Your task to perform on an android device: Search for acer predator on ebay, select the first entry, add it to the cart, then select checkout. Image 0: 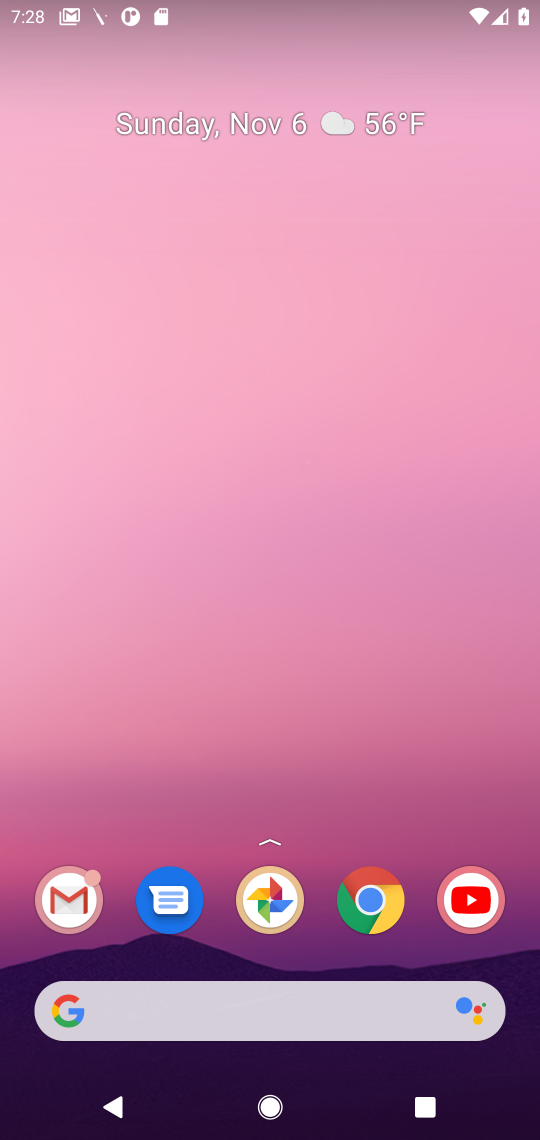
Step 0: drag from (319, 662) to (427, 33)
Your task to perform on an android device: Search for acer predator on ebay, select the first entry, add it to the cart, then select checkout. Image 1: 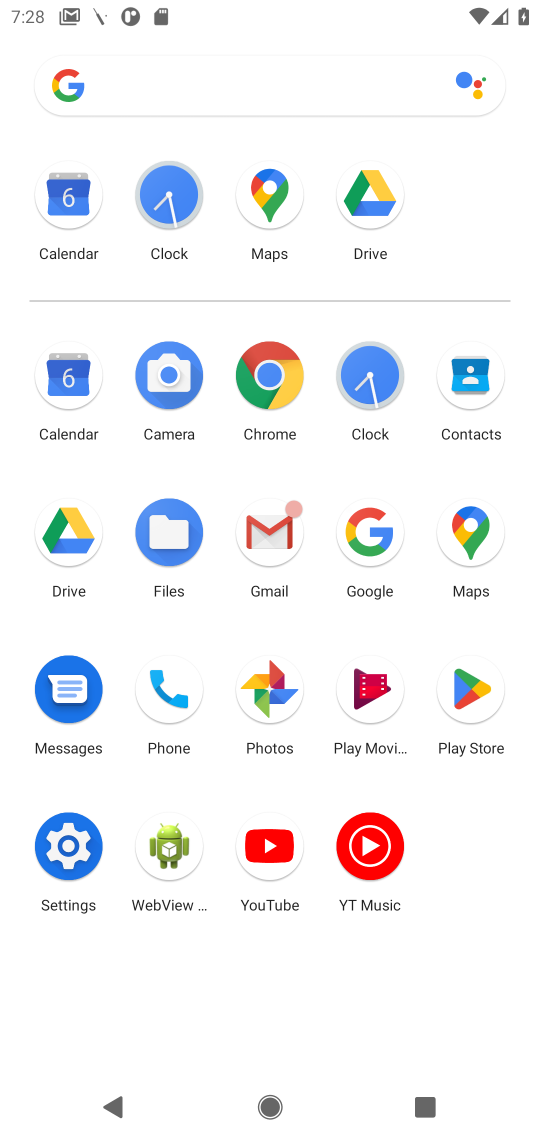
Step 1: click (265, 372)
Your task to perform on an android device: Search for acer predator on ebay, select the first entry, add it to the cart, then select checkout. Image 2: 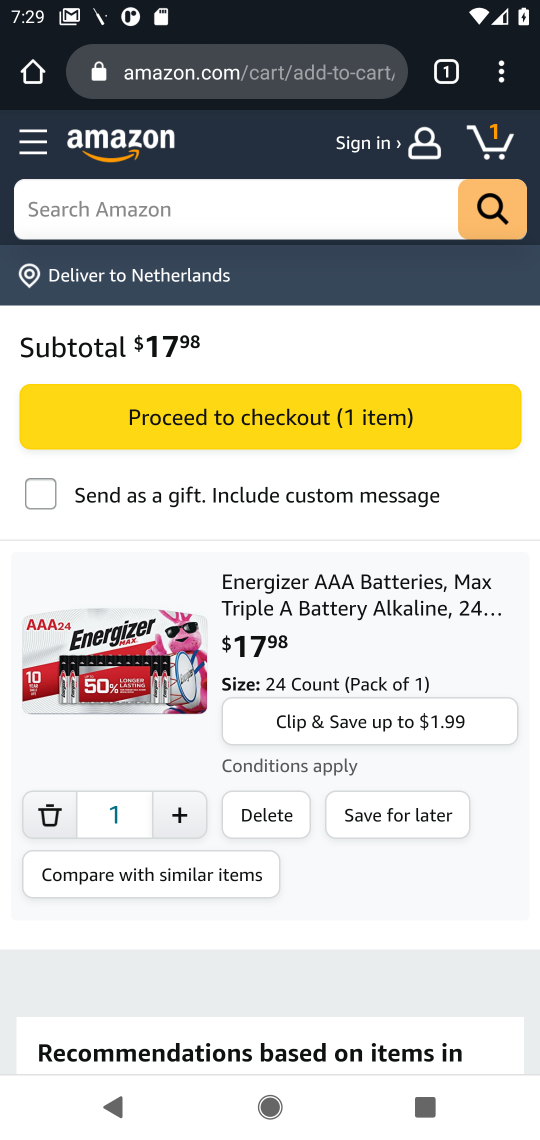
Step 2: click (246, 66)
Your task to perform on an android device: Search for acer predator on ebay, select the first entry, add it to the cart, then select checkout. Image 3: 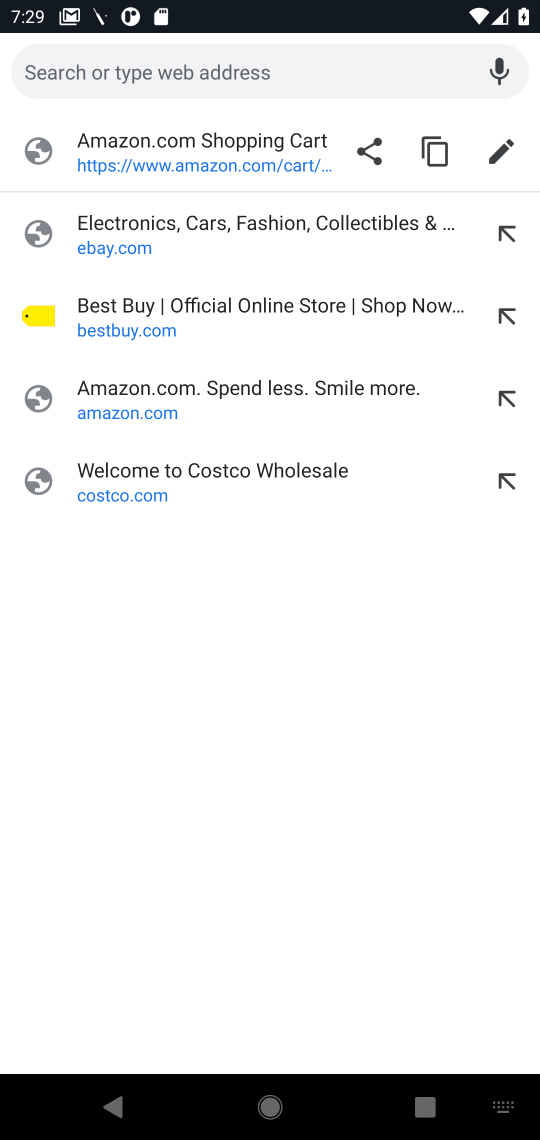
Step 3: type "ebay.com"
Your task to perform on an android device: Search for acer predator on ebay, select the first entry, add it to the cart, then select checkout. Image 4: 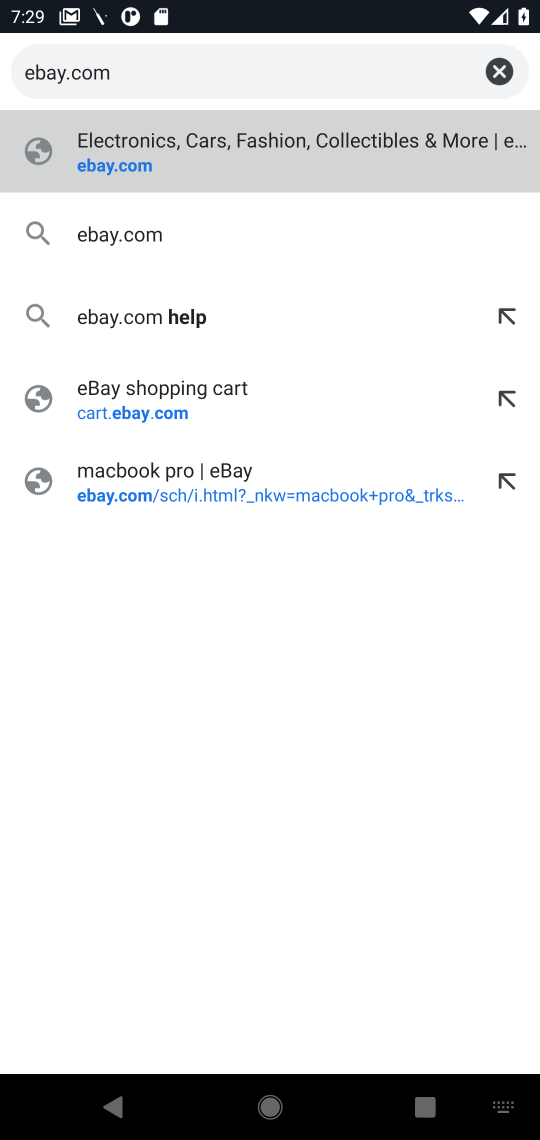
Step 4: press enter
Your task to perform on an android device: Search for acer predator on ebay, select the first entry, add it to the cart, then select checkout. Image 5: 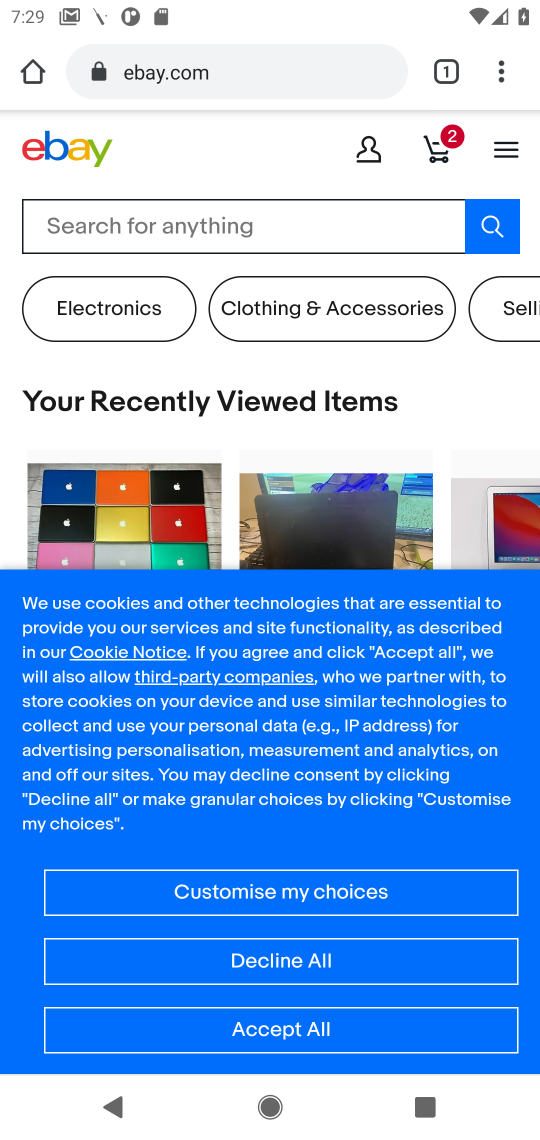
Step 5: click (260, 235)
Your task to perform on an android device: Search for acer predator on ebay, select the first entry, add it to the cart, then select checkout. Image 6: 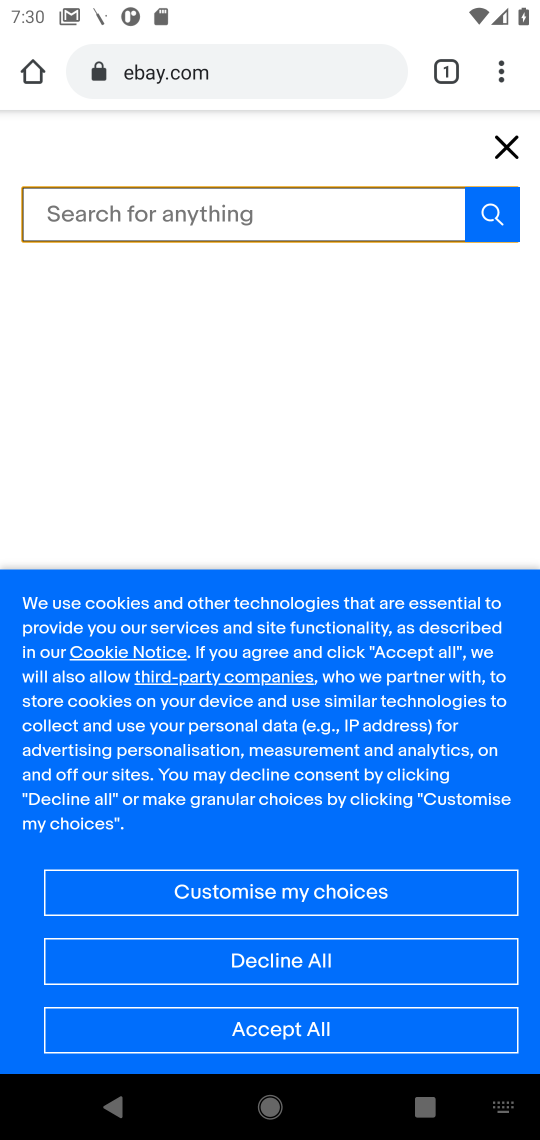
Step 6: type "acer predator"
Your task to perform on an android device: Search for acer predator on ebay, select the first entry, add it to the cart, then select checkout. Image 7: 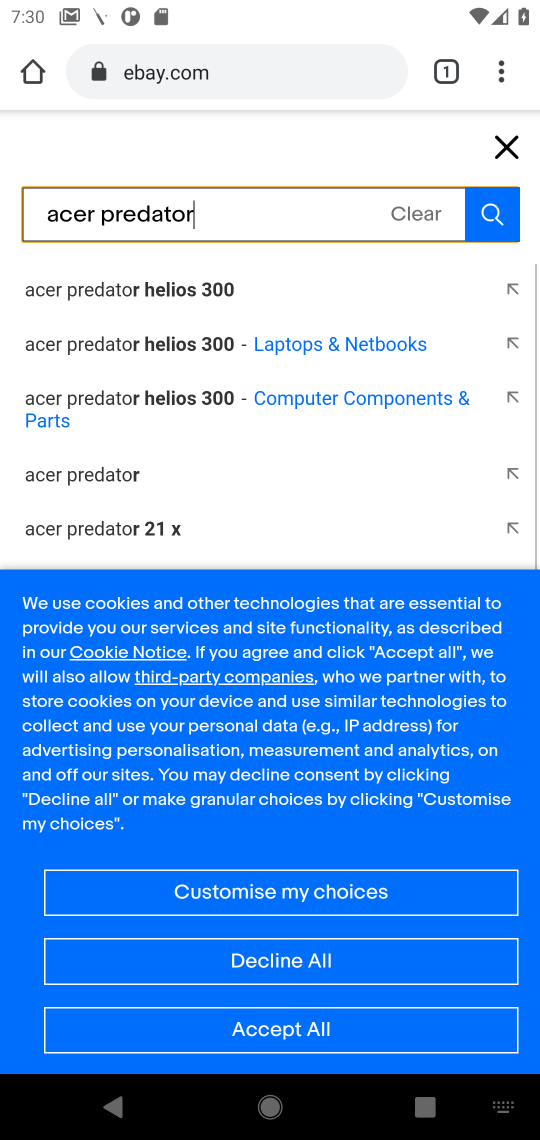
Step 7: press enter
Your task to perform on an android device: Search for acer predator on ebay, select the first entry, add it to the cart, then select checkout. Image 8: 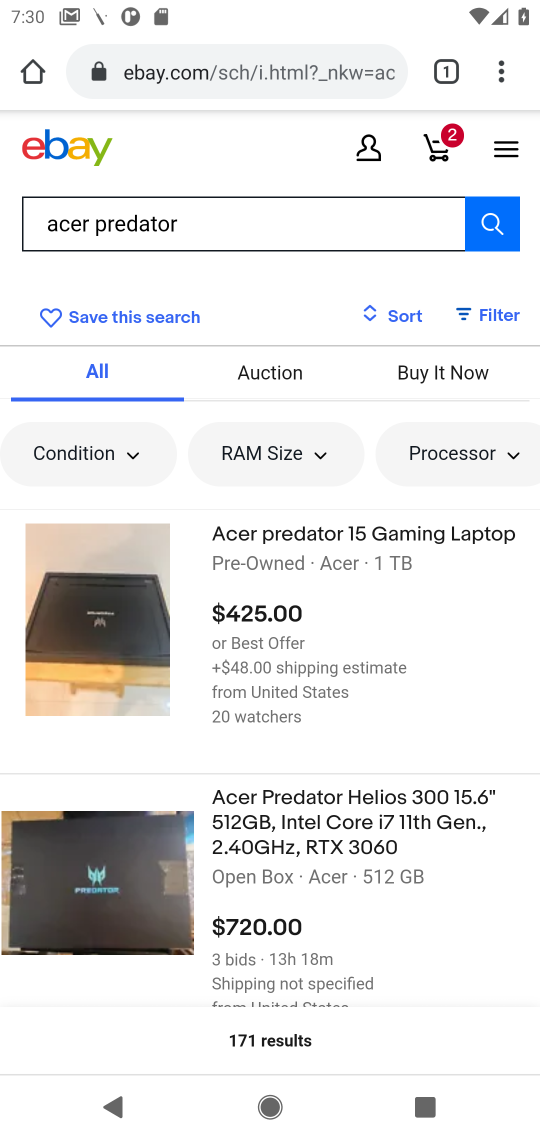
Step 8: click (111, 629)
Your task to perform on an android device: Search for acer predator on ebay, select the first entry, add it to the cart, then select checkout. Image 9: 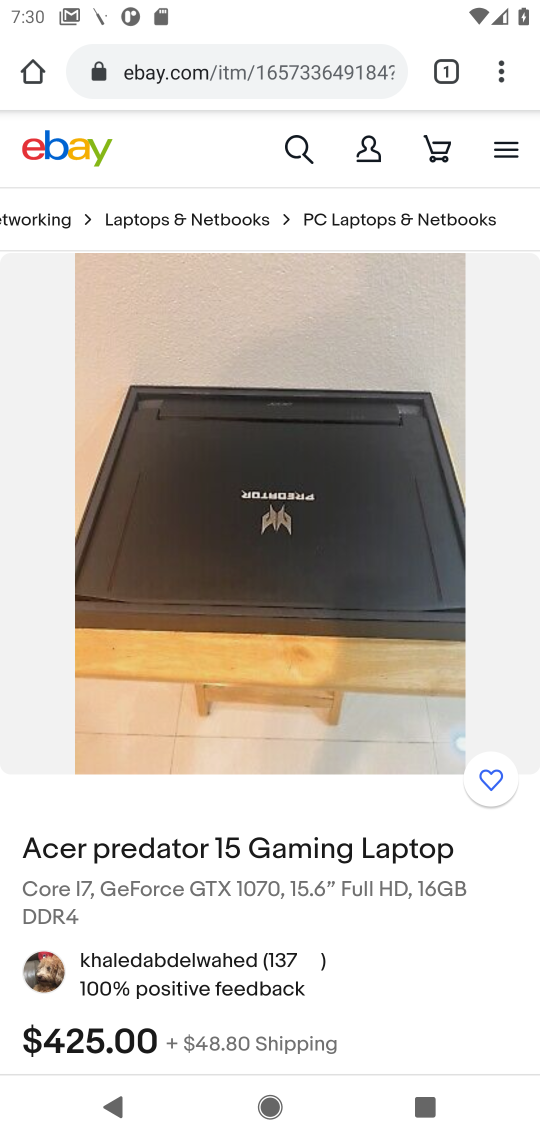
Step 9: drag from (201, 743) to (148, 158)
Your task to perform on an android device: Search for acer predator on ebay, select the first entry, add it to the cart, then select checkout. Image 10: 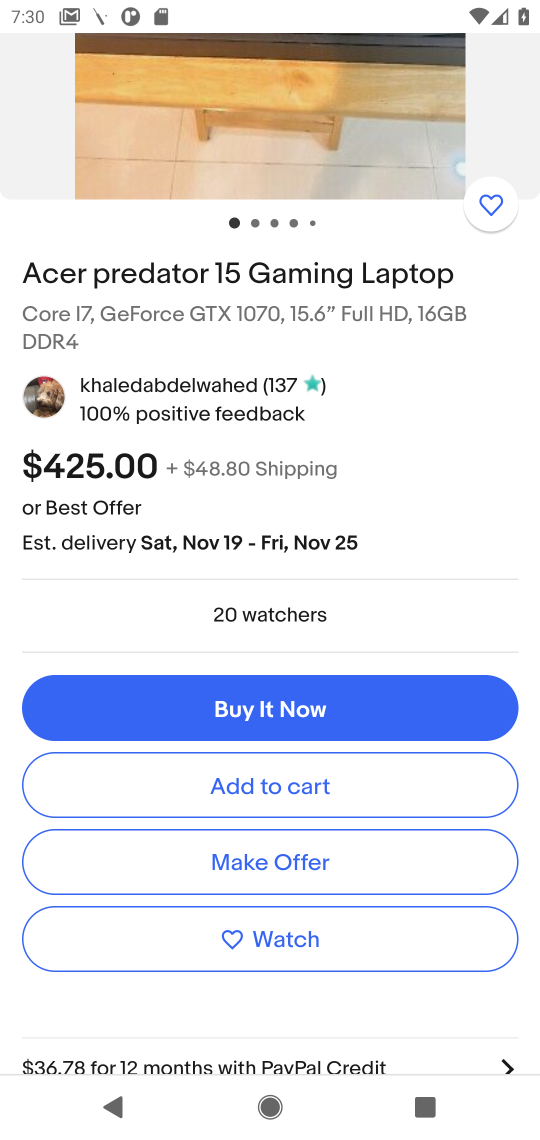
Step 10: click (254, 778)
Your task to perform on an android device: Search for acer predator on ebay, select the first entry, add it to the cart, then select checkout. Image 11: 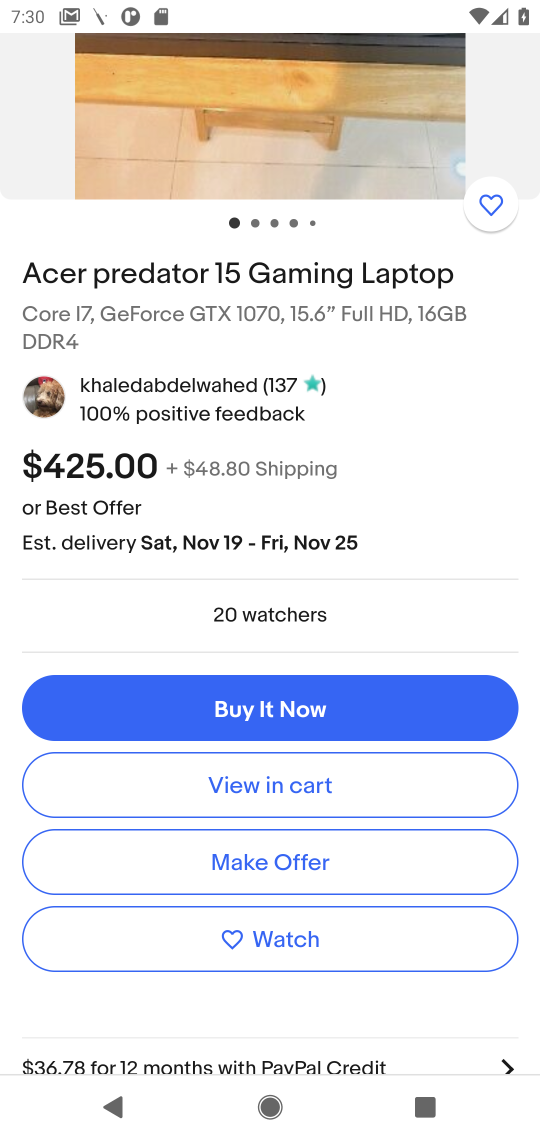
Step 11: click (279, 783)
Your task to perform on an android device: Search for acer predator on ebay, select the first entry, add it to the cart, then select checkout. Image 12: 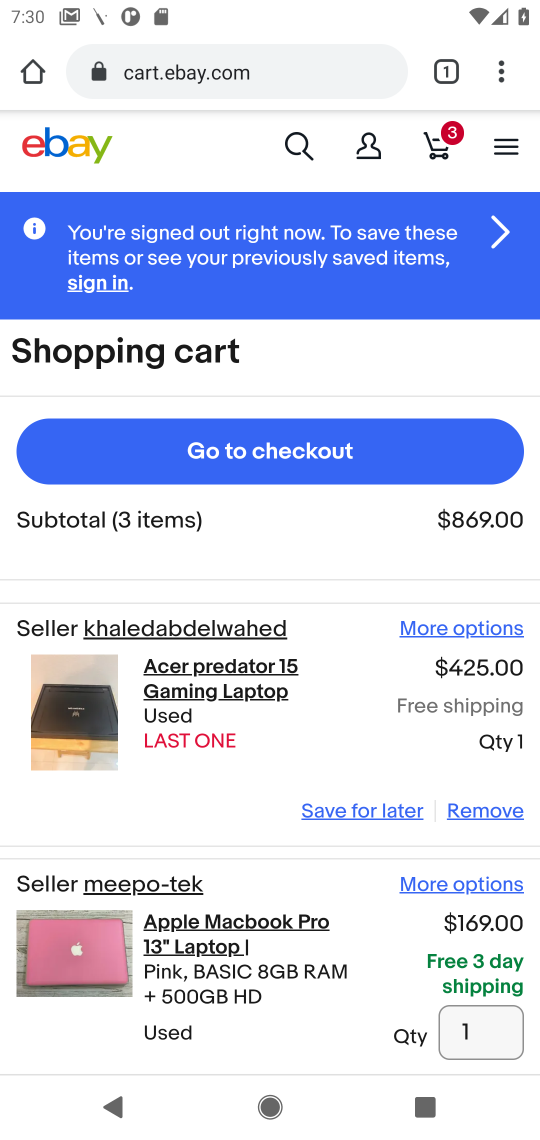
Step 12: click (308, 450)
Your task to perform on an android device: Search for acer predator on ebay, select the first entry, add it to the cart, then select checkout. Image 13: 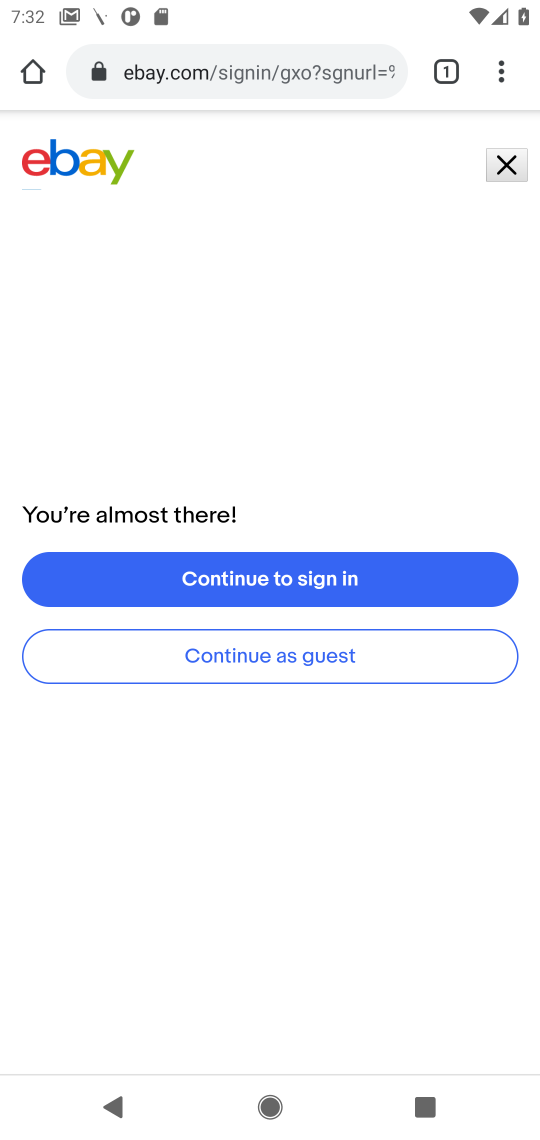
Step 13: task complete